Your task to perform on an android device: Open maps Image 0: 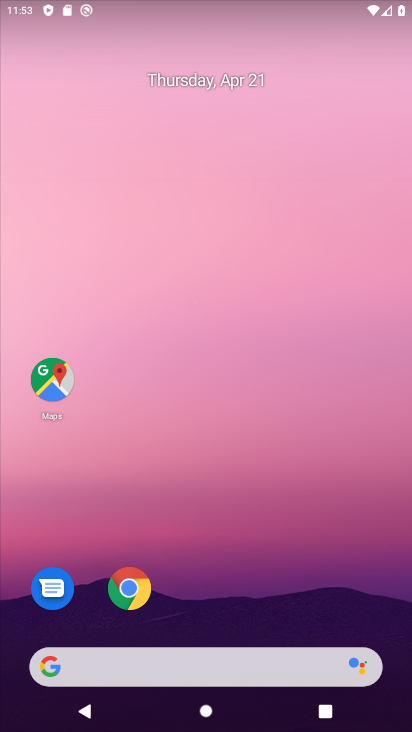
Step 0: click (55, 378)
Your task to perform on an android device: Open maps Image 1: 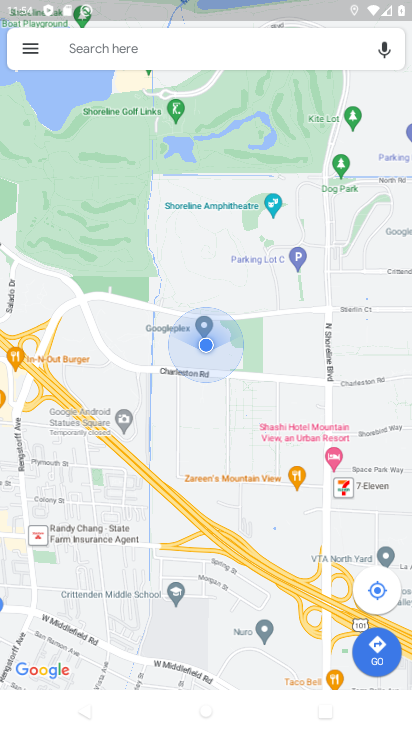
Step 1: task complete